Your task to perform on an android device: turn smart compose on in the gmail app Image 0: 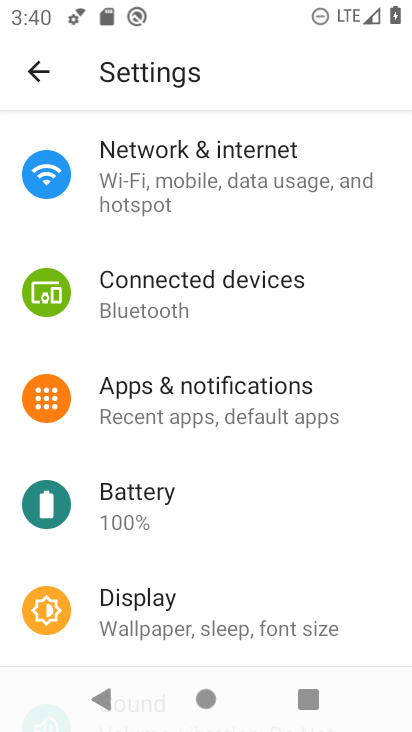
Step 0: press home button
Your task to perform on an android device: turn smart compose on in the gmail app Image 1: 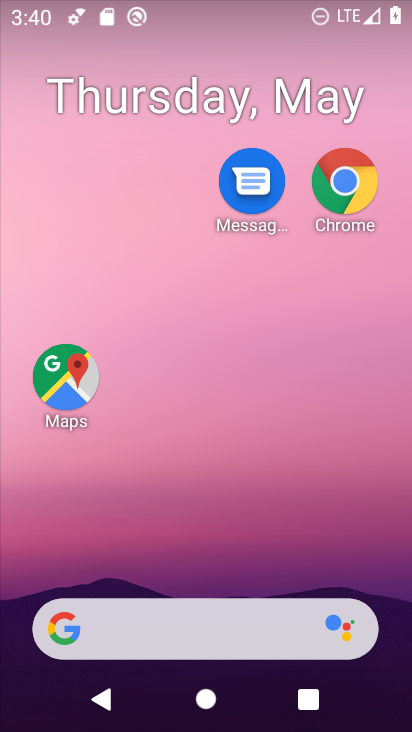
Step 1: drag from (210, 553) to (202, 131)
Your task to perform on an android device: turn smart compose on in the gmail app Image 2: 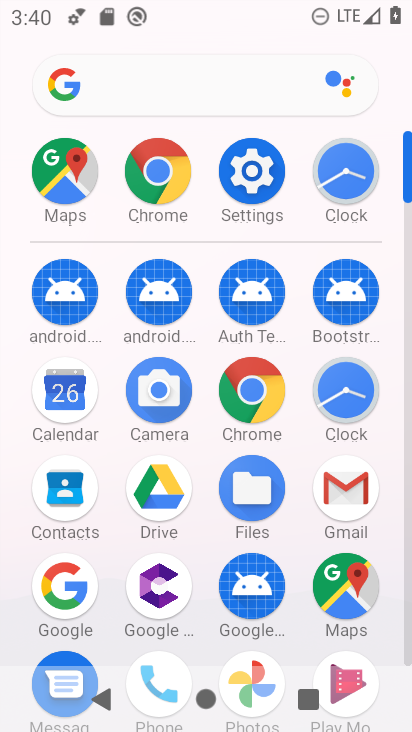
Step 2: click (360, 507)
Your task to perform on an android device: turn smart compose on in the gmail app Image 3: 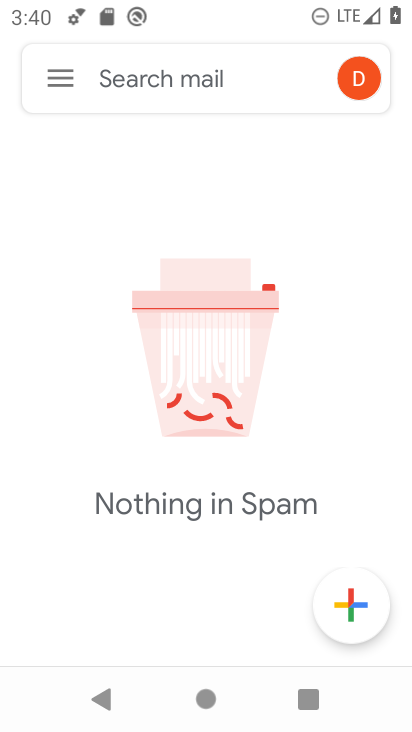
Step 3: click (64, 82)
Your task to perform on an android device: turn smart compose on in the gmail app Image 4: 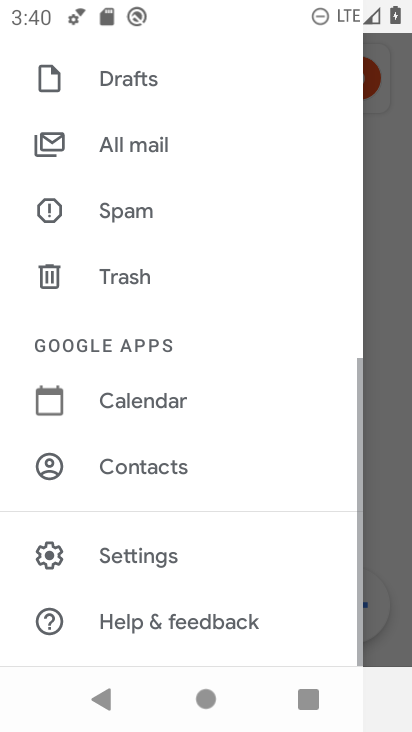
Step 4: click (182, 555)
Your task to perform on an android device: turn smart compose on in the gmail app Image 5: 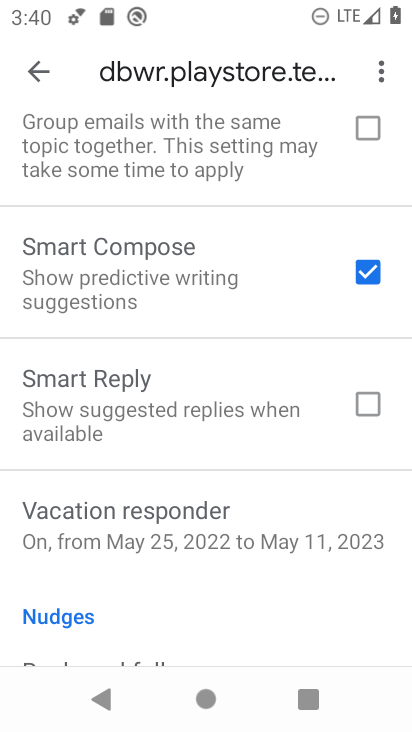
Step 5: task complete